Your task to perform on an android device: turn pop-ups off in chrome Image 0: 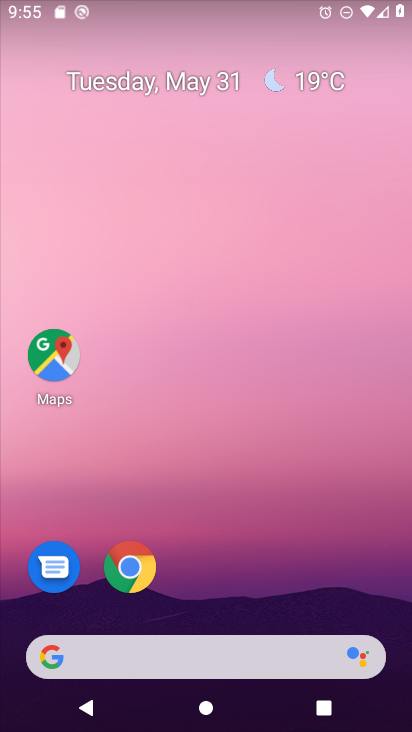
Step 0: click (154, 565)
Your task to perform on an android device: turn pop-ups off in chrome Image 1: 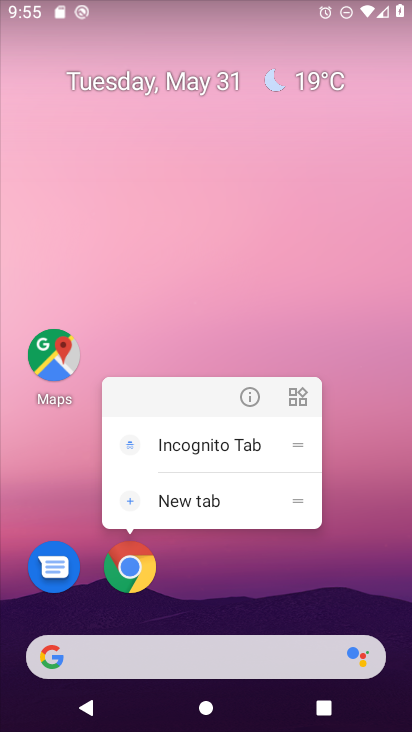
Step 1: click (123, 573)
Your task to perform on an android device: turn pop-ups off in chrome Image 2: 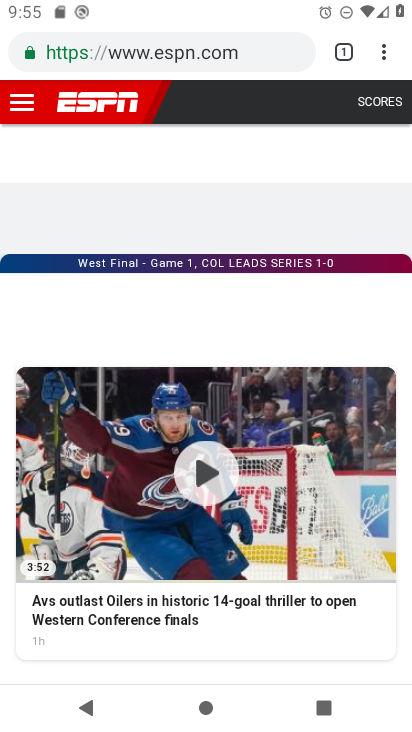
Step 2: click (374, 54)
Your task to perform on an android device: turn pop-ups off in chrome Image 3: 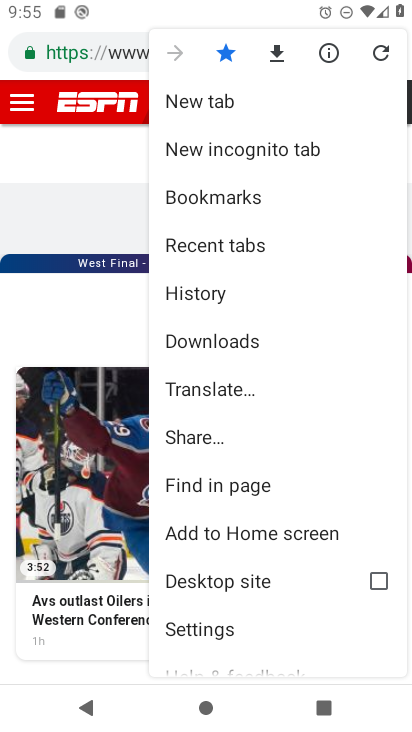
Step 3: click (211, 634)
Your task to perform on an android device: turn pop-ups off in chrome Image 4: 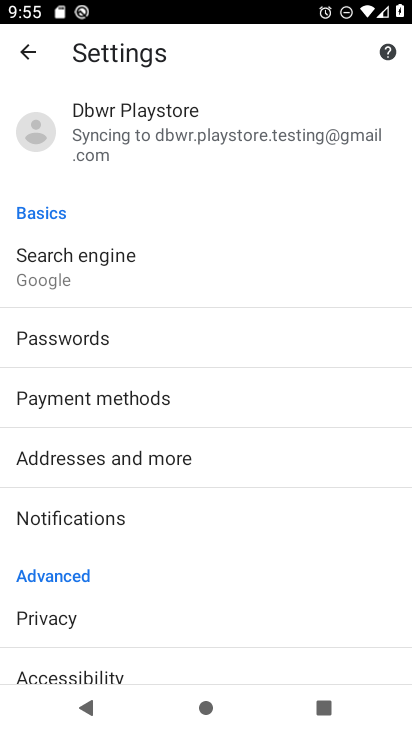
Step 4: drag from (81, 656) to (127, 158)
Your task to perform on an android device: turn pop-ups off in chrome Image 5: 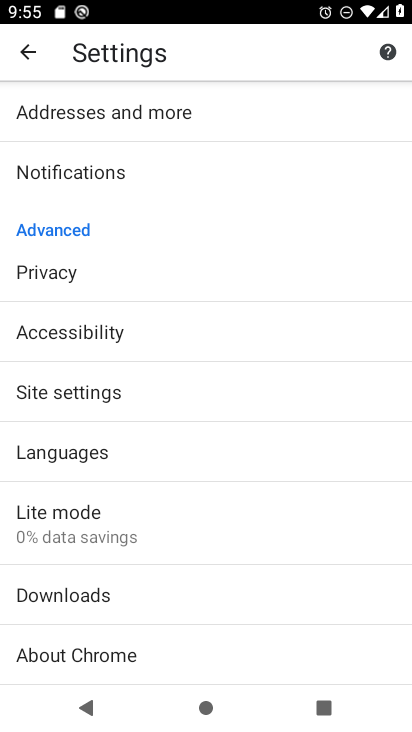
Step 5: drag from (57, 657) to (110, 283)
Your task to perform on an android device: turn pop-ups off in chrome Image 6: 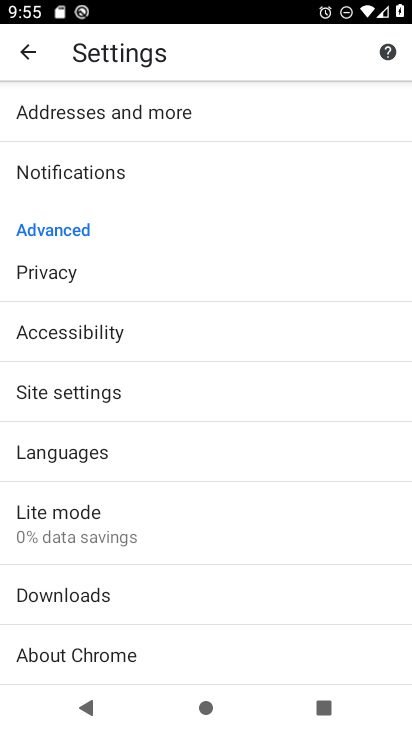
Step 6: click (71, 397)
Your task to perform on an android device: turn pop-ups off in chrome Image 7: 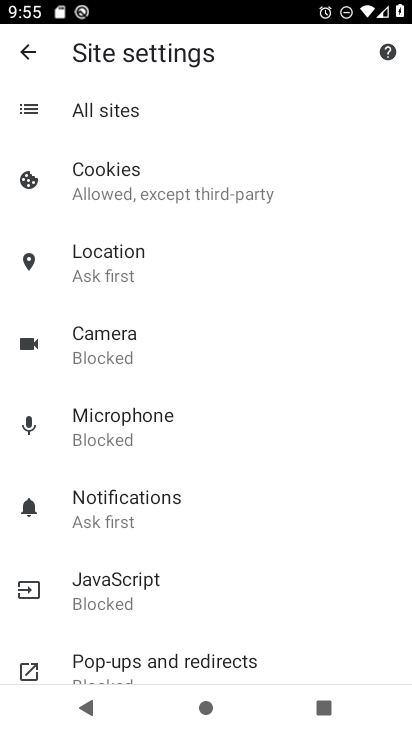
Step 7: click (115, 671)
Your task to perform on an android device: turn pop-ups off in chrome Image 8: 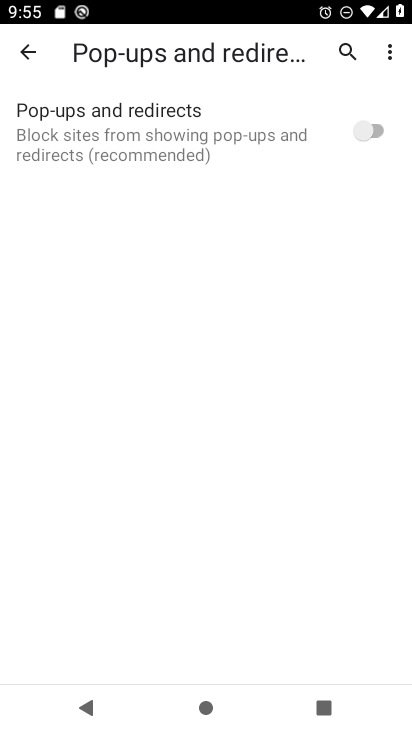
Step 8: task complete